Your task to perform on an android device: toggle priority inbox in the gmail app Image 0: 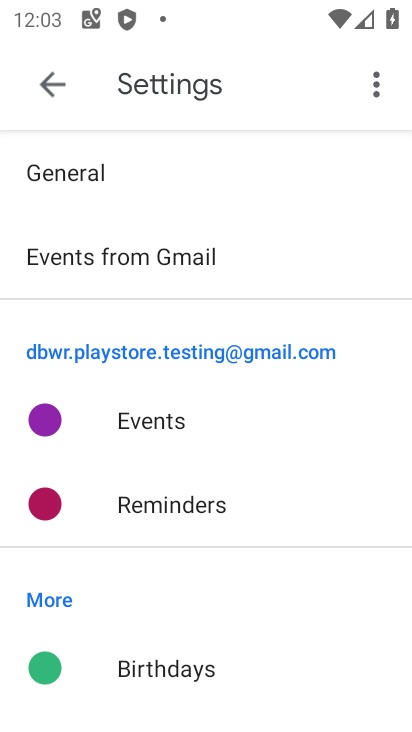
Step 0: press home button
Your task to perform on an android device: toggle priority inbox in the gmail app Image 1: 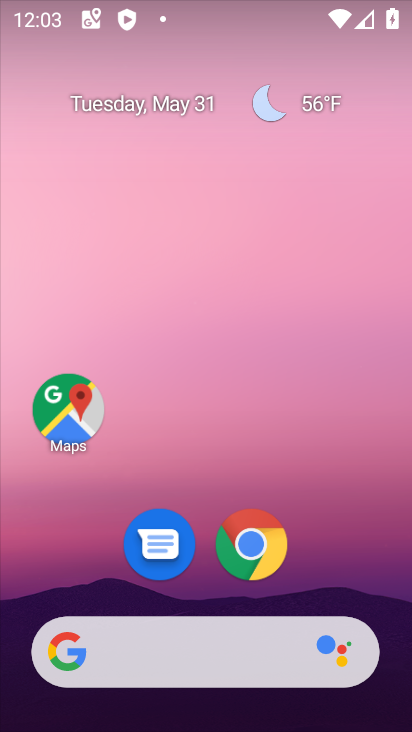
Step 1: drag from (350, 571) to (217, 205)
Your task to perform on an android device: toggle priority inbox in the gmail app Image 2: 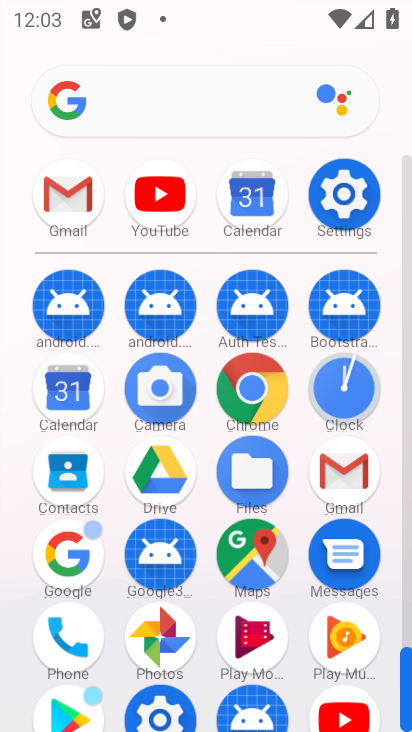
Step 2: click (352, 469)
Your task to perform on an android device: toggle priority inbox in the gmail app Image 3: 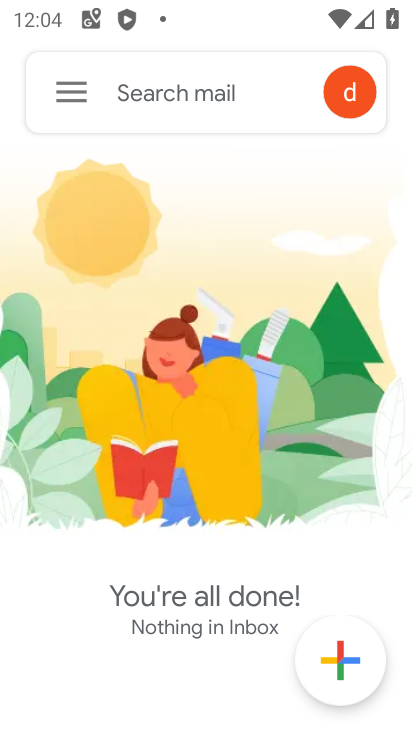
Step 3: click (75, 88)
Your task to perform on an android device: toggle priority inbox in the gmail app Image 4: 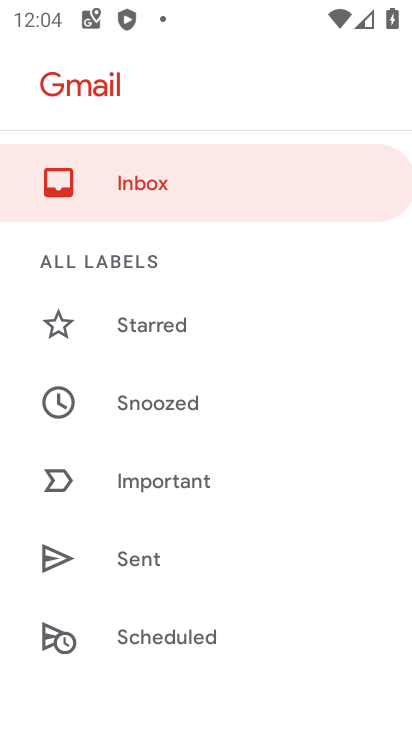
Step 4: drag from (223, 579) to (166, 175)
Your task to perform on an android device: toggle priority inbox in the gmail app Image 5: 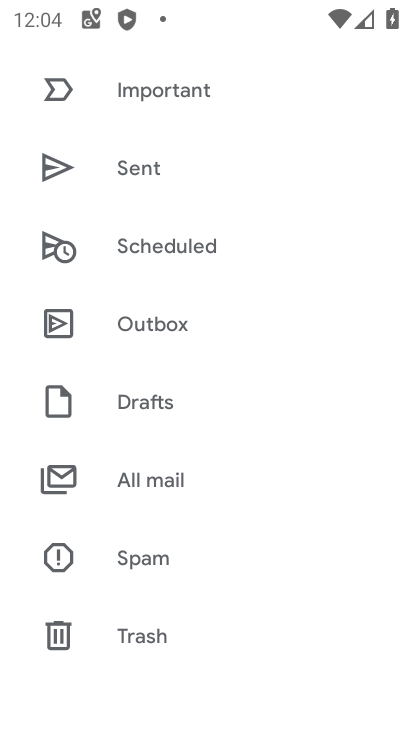
Step 5: drag from (246, 557) to (259, 160)
Your task to perform on an android device: toggle priority inbox in the gmail app Image 6: 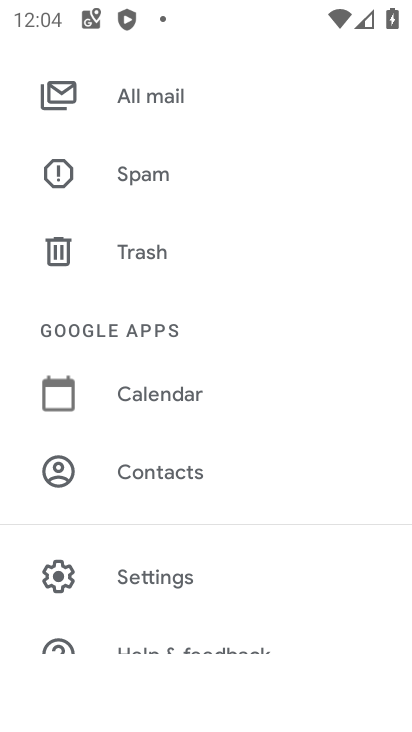
Step 6: click (182, 574)
Your task to perform on an android device: toggle priority inbox in the gmail app Image 7: 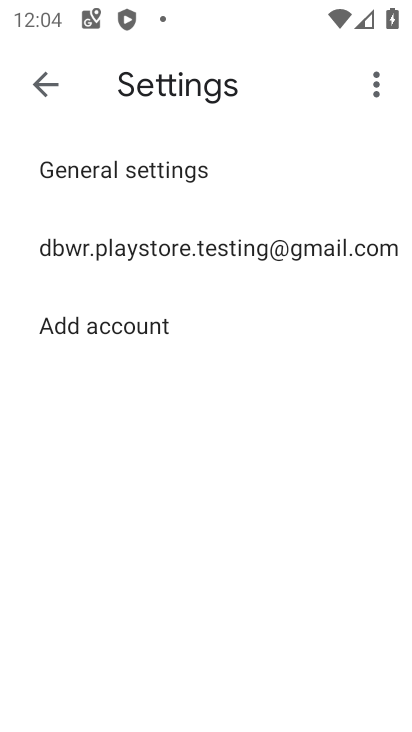
Step 7: click (135, 252)
Your task to perform on an android device: toggle priority inbox in the gmail app Image 8: 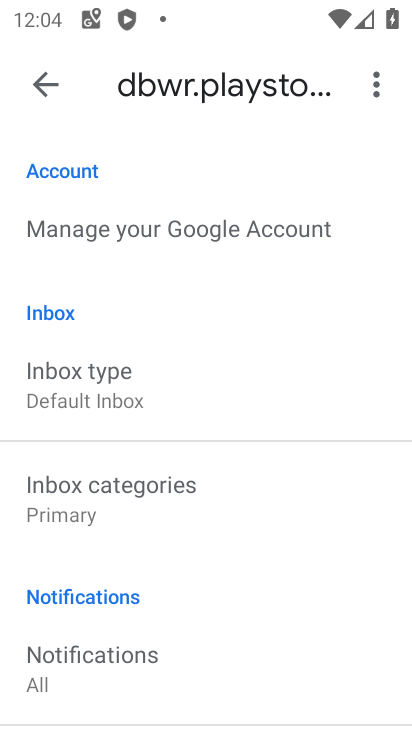
Step 8: click (72, 395)
Your task to perform on an android device: toggle priority inbox in the gmail app Image 9: 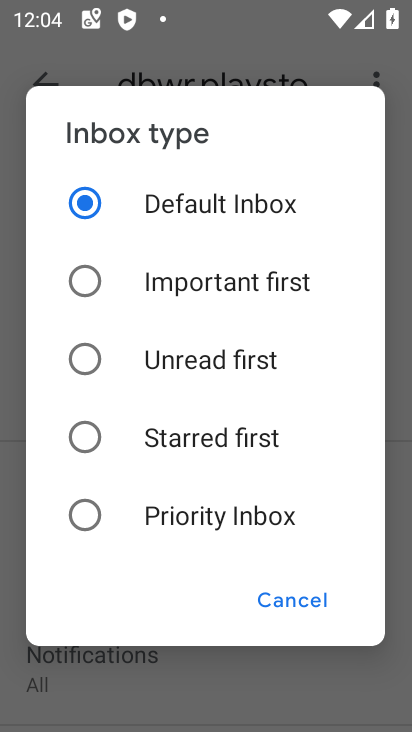
Step 9: click (84, 518)
Your task to perform on an android device: toggle priority inbox in the gmail app Image 10: 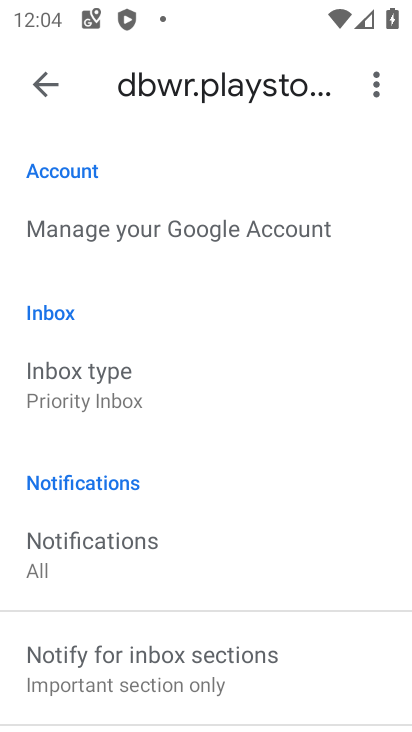
Step 10: task complete